Your task to perform on an android device: Open accessibility settings Image 0: 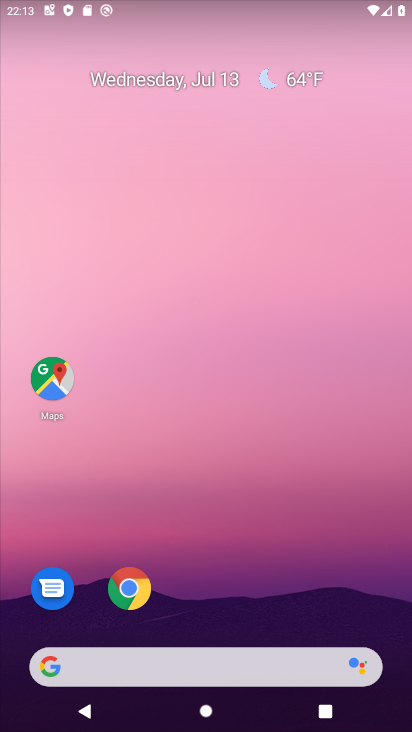
Step 0: click (261, 118)
Your task to perform on an android device: Open accessibility settings Image 1: 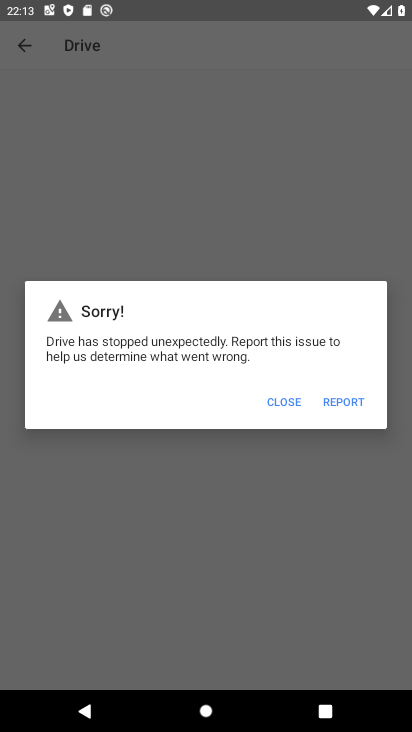
Step 1: press back button
Your task to perform on an android device: Open accessibility settings Image 2: 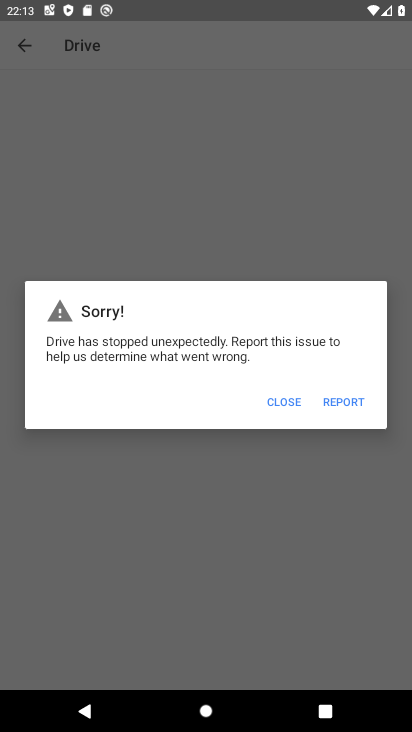
Step 2: click (280, 404)
Your task to perform on an android device: Open accessibility settings Image 3: 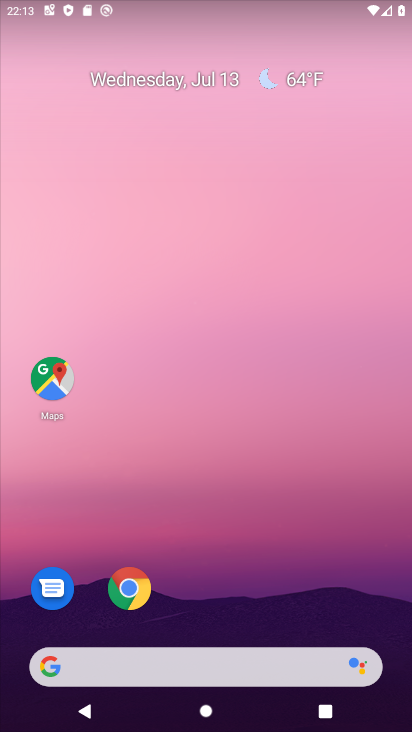
Step 3: drag from (240, 586) to (292, 50)
Your task to perform on an android device: Open accessibility settings Image 4: 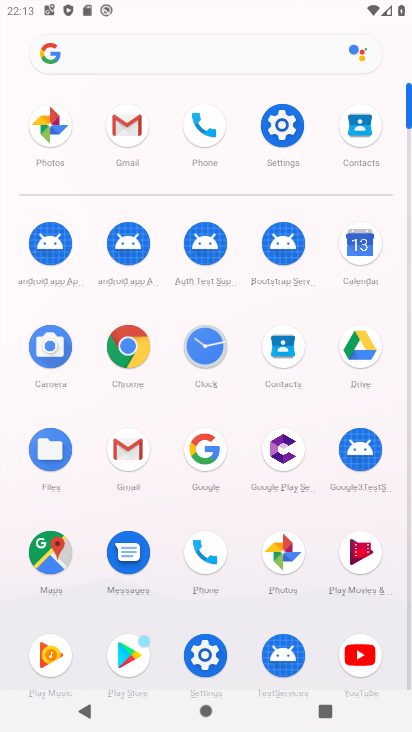
Step 4: click (276, 120)
Your task to perform on an android device: Open accessibility settings Image 5: 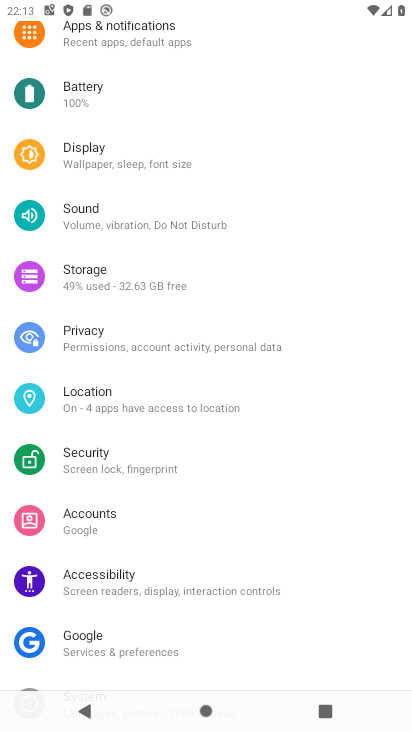
Step 5: click (106, 587)
Your task to perform on an android device: Open accessibility settings Image 6: 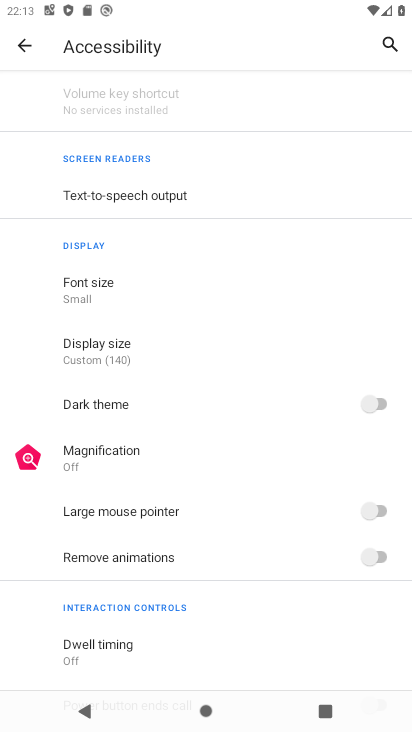
Step 6: task complete